Your task to perform on an android device: turn off translation in the chrome app Image 0: 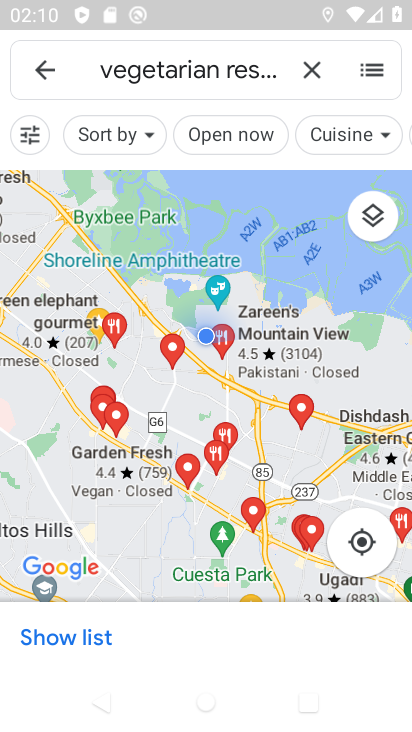
Step 0: drag from (232, 503) to (256, 332)
Your task to perform on an android device: turn off translation in the chrome app Image 1: 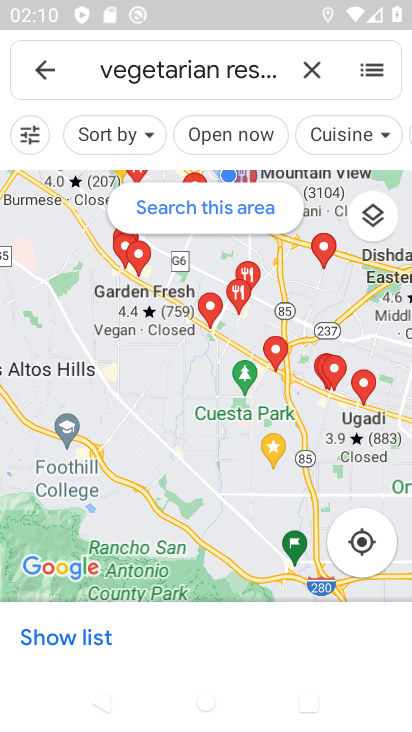
Step 1: click (38, 79)
Your task to perform on an android device: turn off translation in the chrome app Image 2: 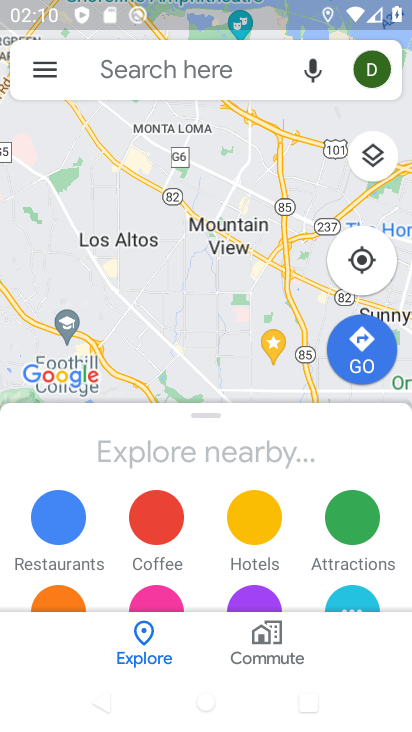
Step 2: press home button
Your task to perform on an android device: turn off translation in the chrome app Image 3: 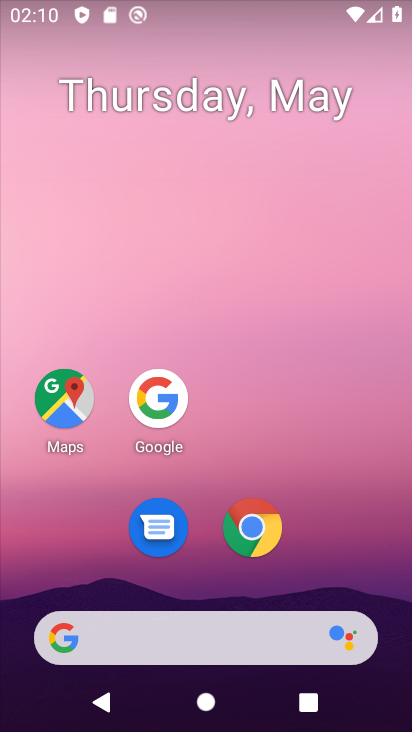
Step 3: drag from (205, 565) to (204, 214)
Your task to perform on an android device: turn off translation in the chrome app Image 4: 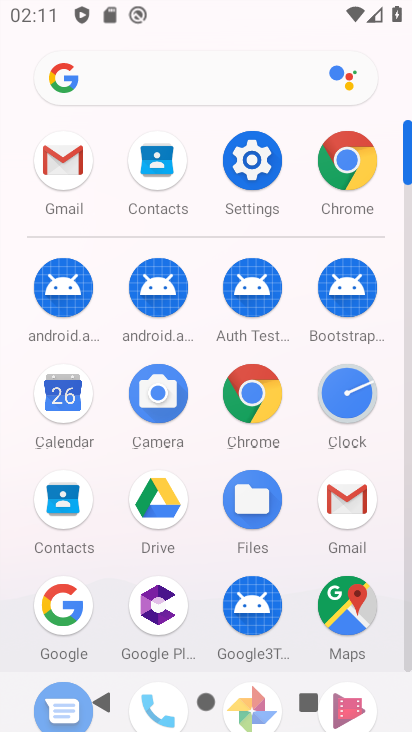
Step 4: click (258, 382)
Your task to perform on an android device: turn off translation in the chrome app Image 5: 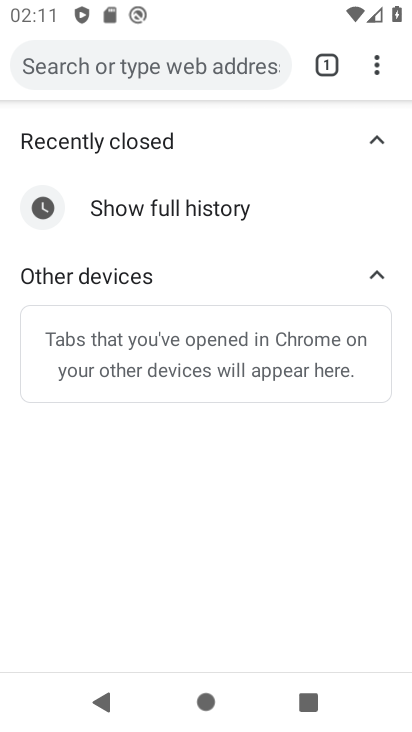
Step 5: click (370, 66)
Your task to perform on an android device: turn off translation in the chrome app Image 6: 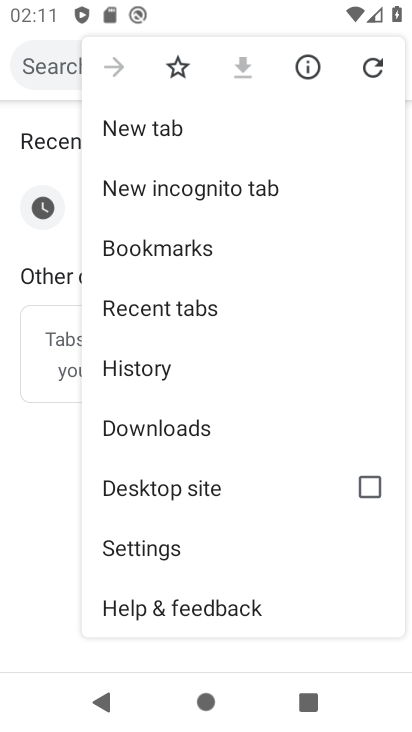
Step 6: click (172, 547)
Your task to perform on an android device: turn off translation in the chrome app Image 7: 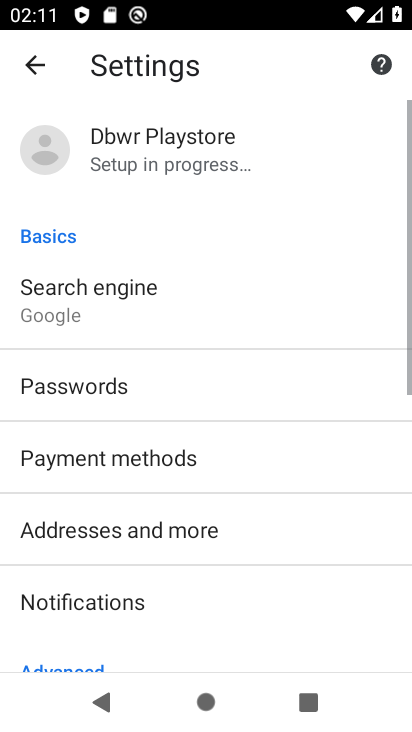
Step 7: drag from (168, 554) to (286, 2)
Your task to perform on an android device: turn off translation in the chrome app Image 8: 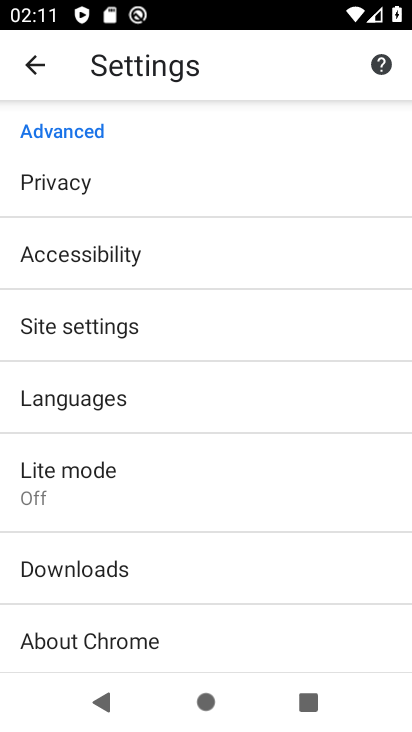
Step 8: click (124, 373)
Your task to perform on an android device: turn off translation in the chrome app Image 9: 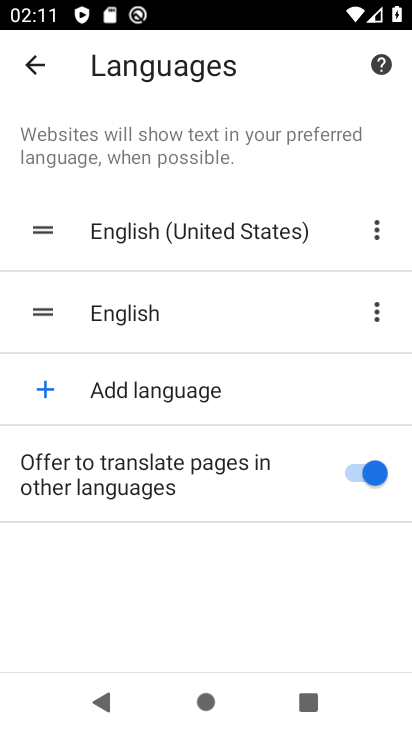
Step 9: click (350, 490)
Your task to perform on an android device: turn off translation in the chrome app Image 10: 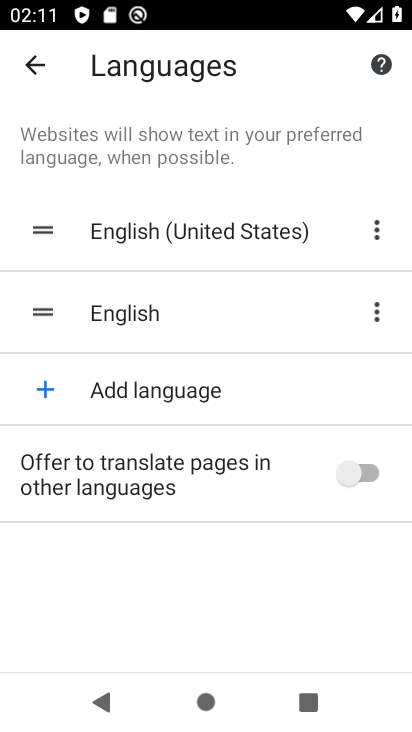
Step 10: task complete